Your task to perform on an android device: turn on data saver in the chrome app Image 0: 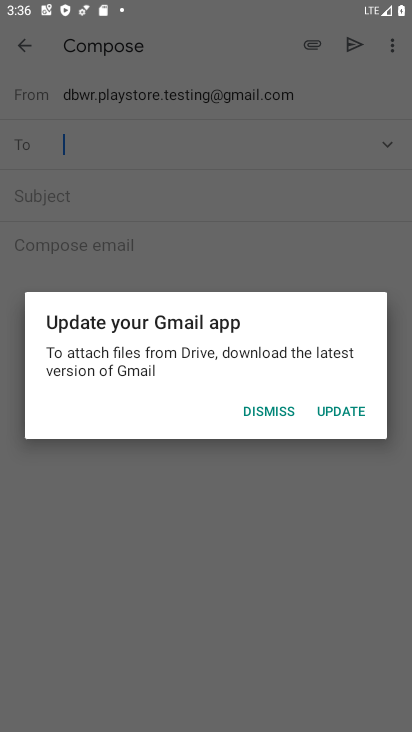
Step 0: press back button
Your task to perform on an android device: turn on data saver in the chrome app Image 1: 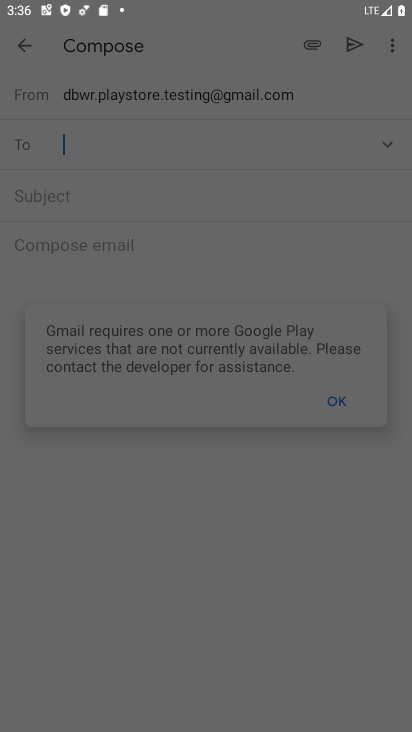
Step 1: press home button
Your task to perform on an android device: turn on data saver in the chrome app Image 2: 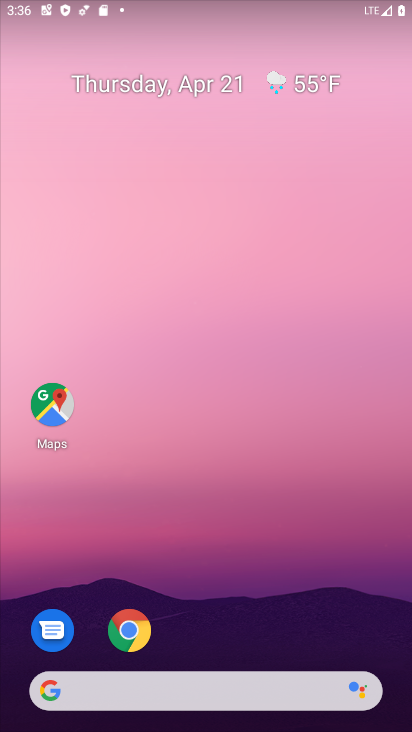
Step 2: click (136, 634)
Your task to perform on an android device: turn on data saver in the chrome app Image 3: 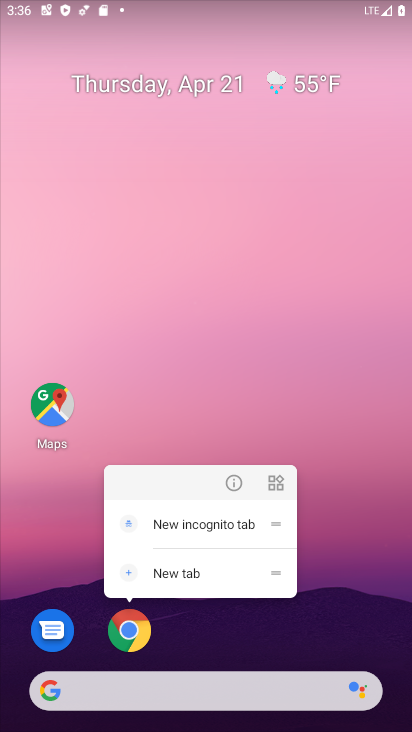
Step 3: click (130, 629)
Your task to perform on an android device: turn on data saver in the chrome app Image 4: 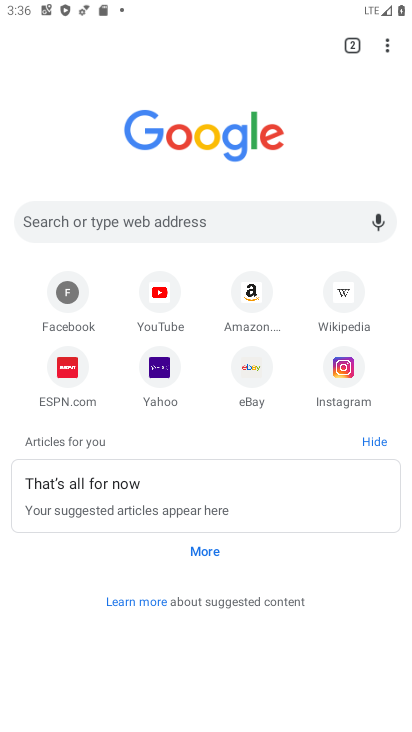
Step 4: drag from (387, 41) to (213, 425)
Your task to perform on an android device: turn on data saver in the chrome app Image 5: 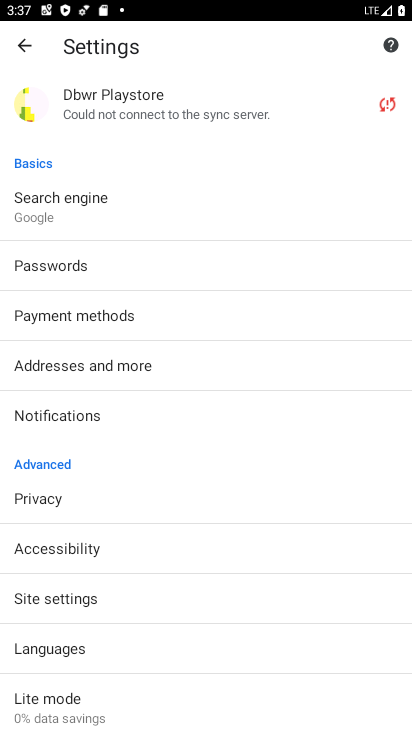
Step 5: click (71, 703)
Your task to perform on an android device: turn on data saver in the chrome app Image 6: 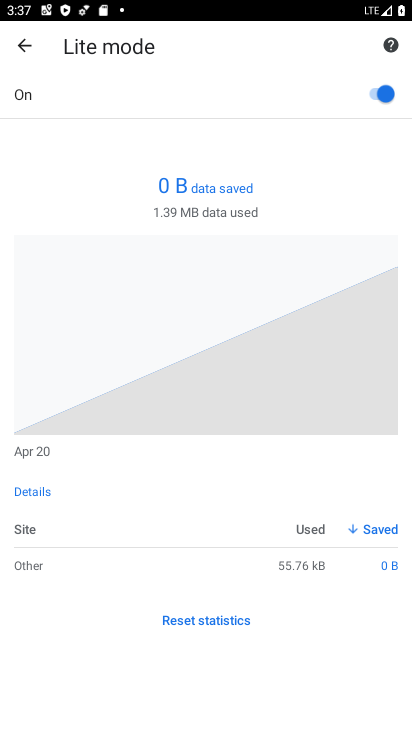
Step 6: task complete